Your task to perform on an android device: install app "Indeed Job Search" Image 0: 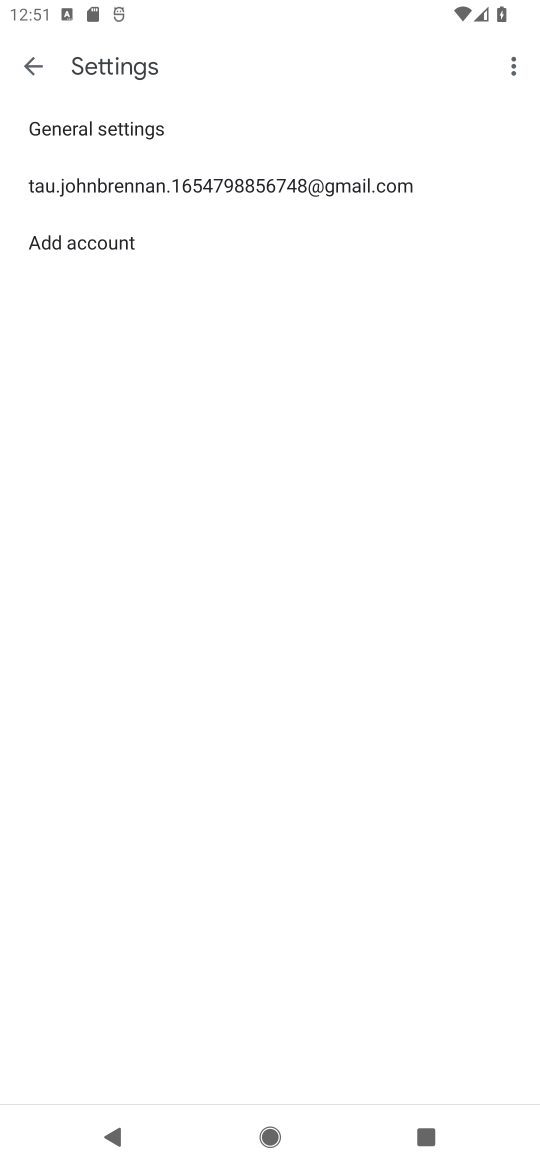
Step 0: press home button
Your task to perform on an android device: install app "Indeed Job Search" Image 1: 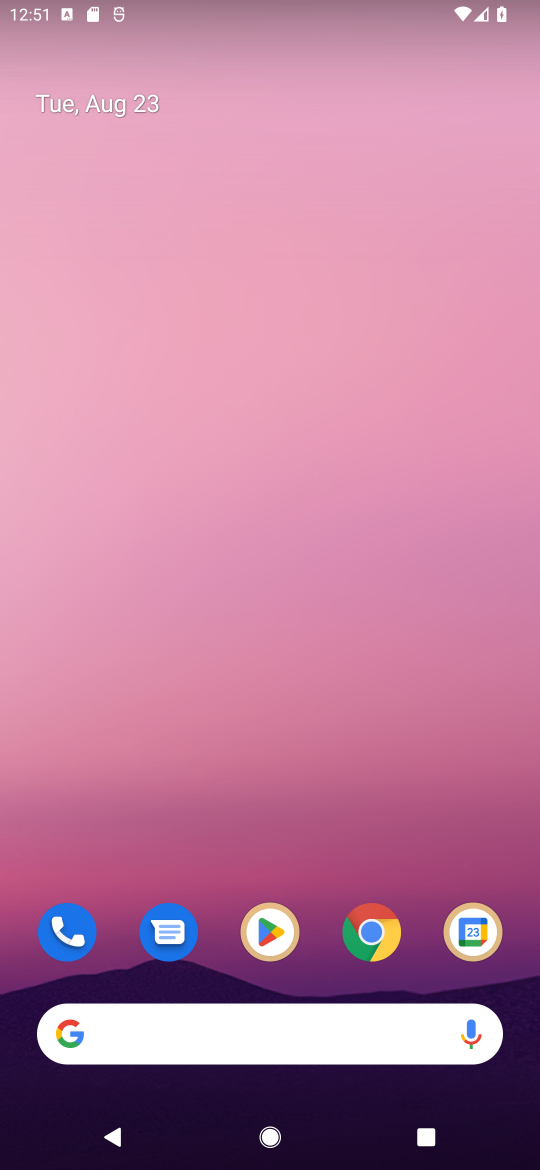
Step 1: click (273, 937)
Your task to perform on an android device: install app "Indeed Job Search" Image 2: 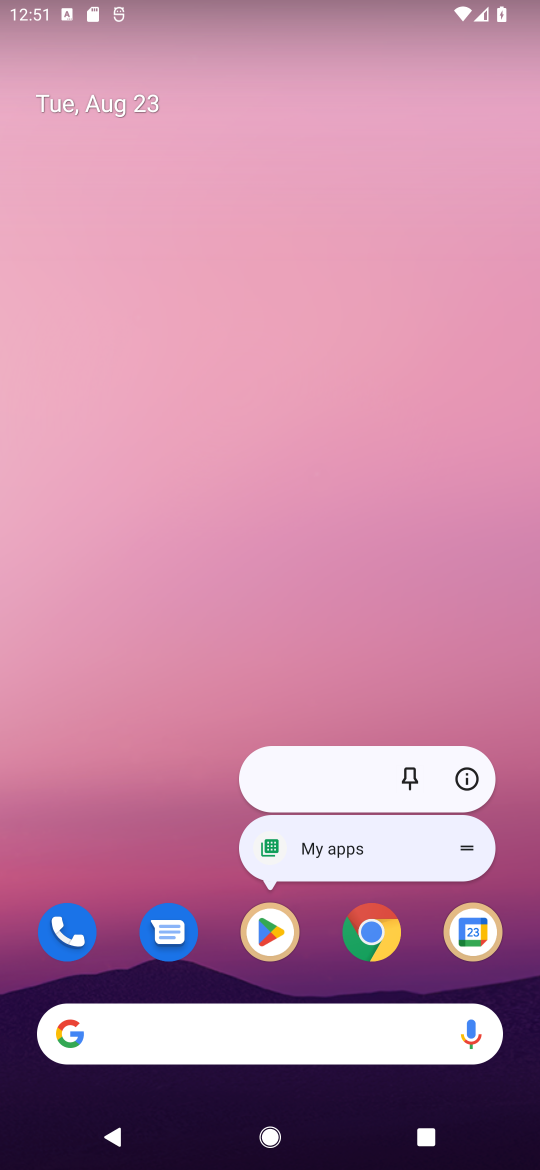
Step 2: click (265, 930)
Your task to perform on an android device: install app "Indeed Job Search" Image 3: 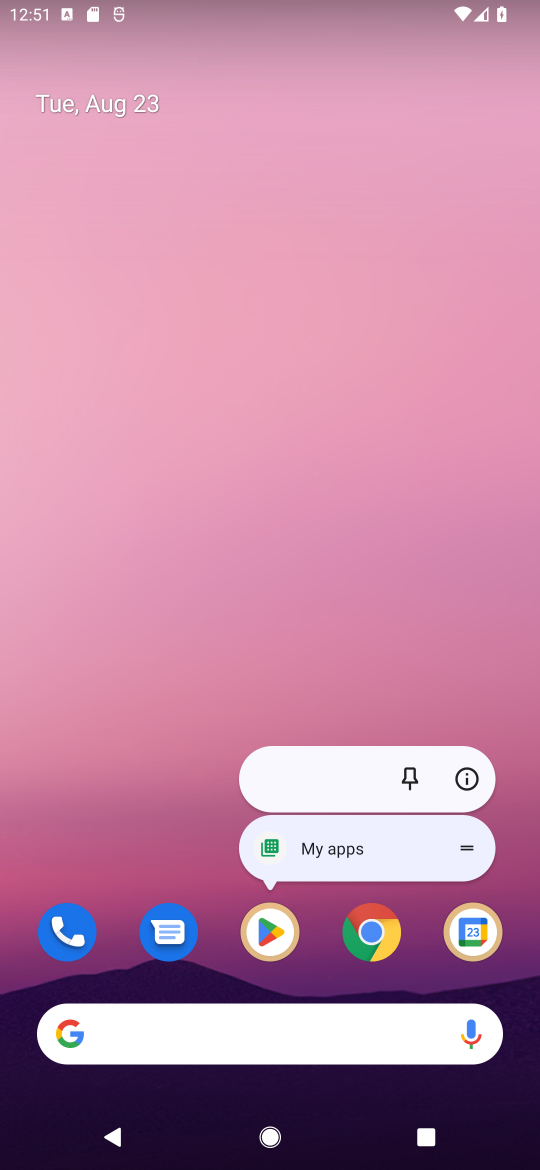
Step 3: click (263, 939)
Your task to perform on an android device: install app "Indeed Job Search" Image 4: 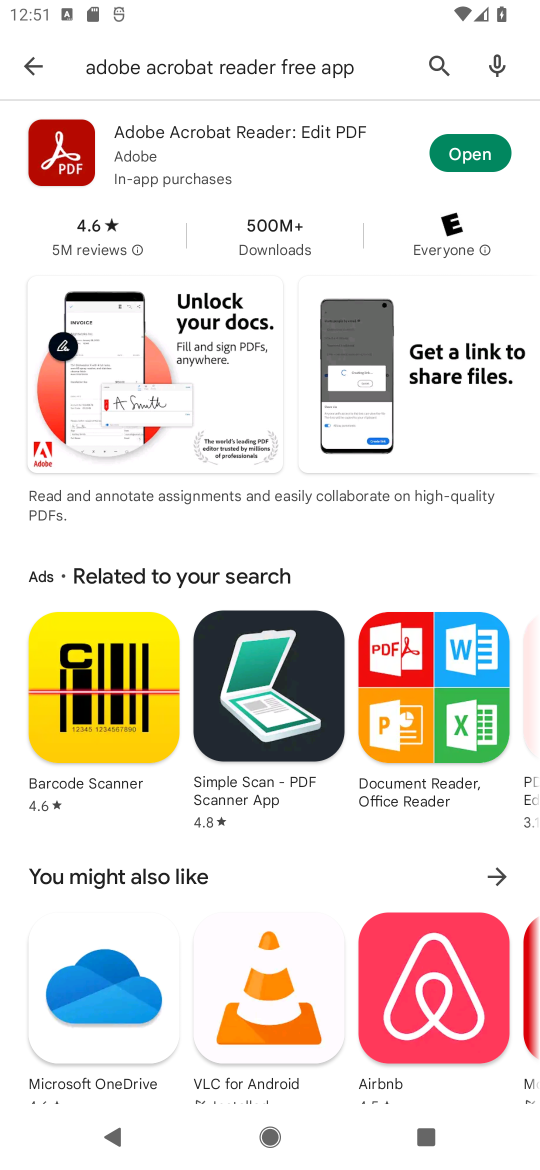
Step 4: click (439, 53)
Your task to perform on an android device: install app "Indeed Job Search" Image 5: 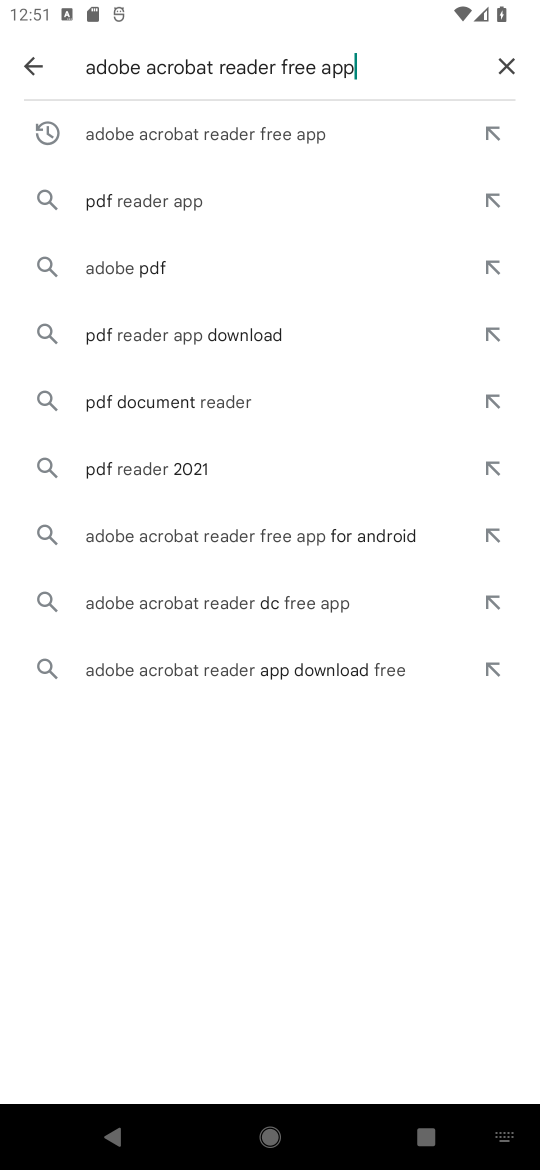
Step 5: click (500, 48)
Your task to perform on an android device: install app "Indeed Job Search" Image 6: 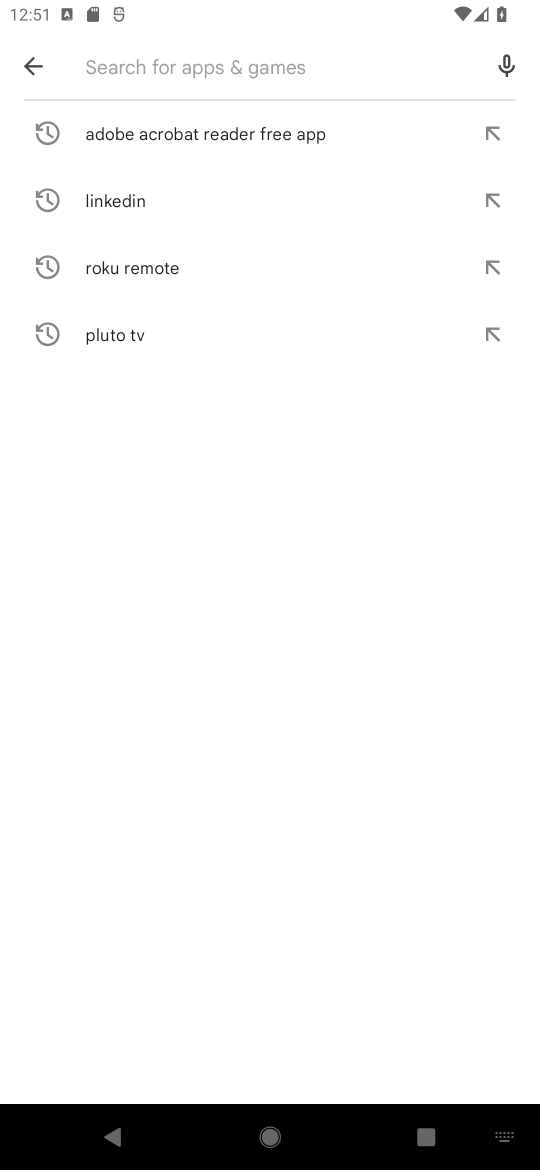
Step 6: click (214, 72)
Your task to perform on an android device: install app "Indeed Job Search" Image 7: 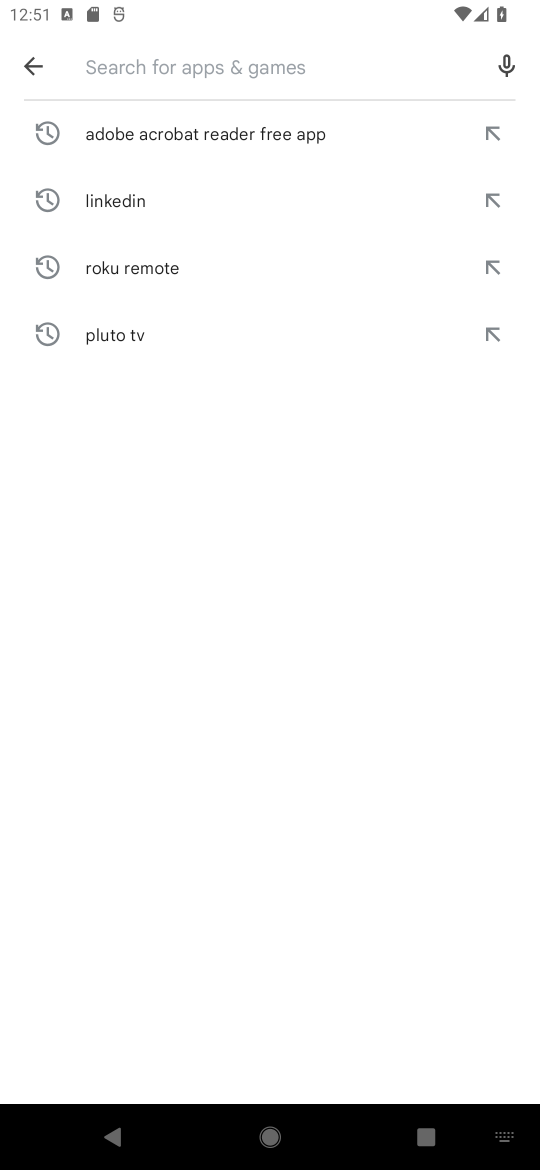
Step 7: type "Indeed Job Search"
Your task to perform on an android device: install app "Indeed Job Search" Image 8: 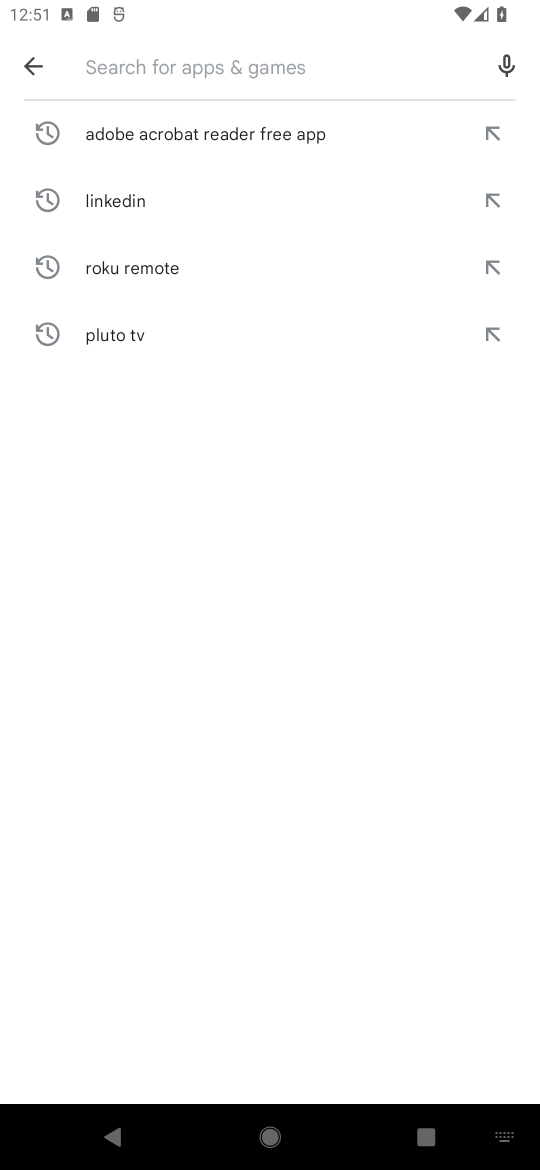
Step 8: click (325, 654)
Your task to perform on an android device: install app "Indeed Job Search" Image 9: 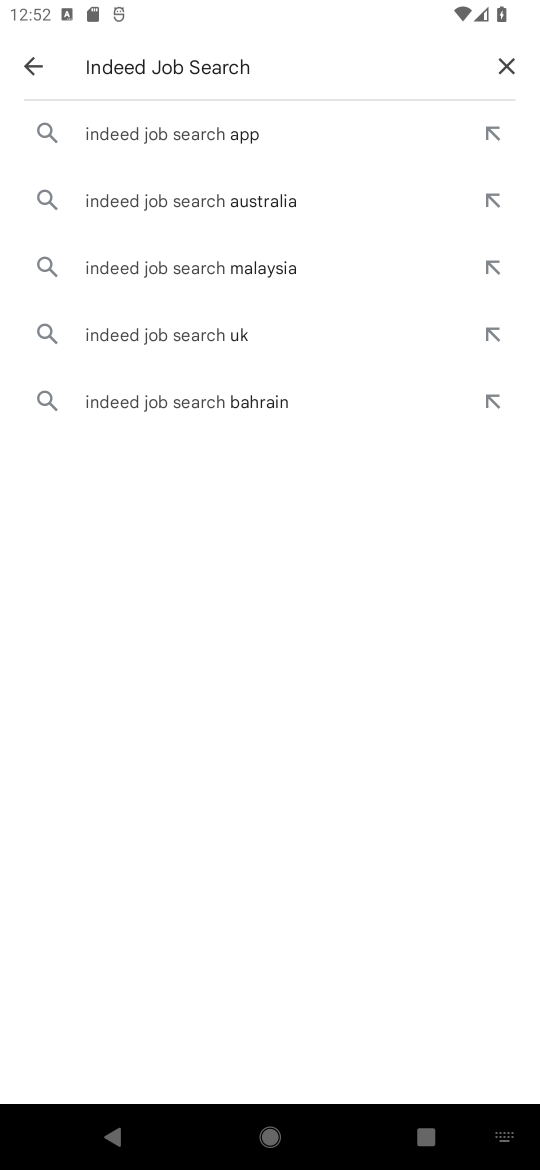
Step 9: click (244, 140)
Your task to perform on an android device: install app "Indeed Job Search" Image 10: 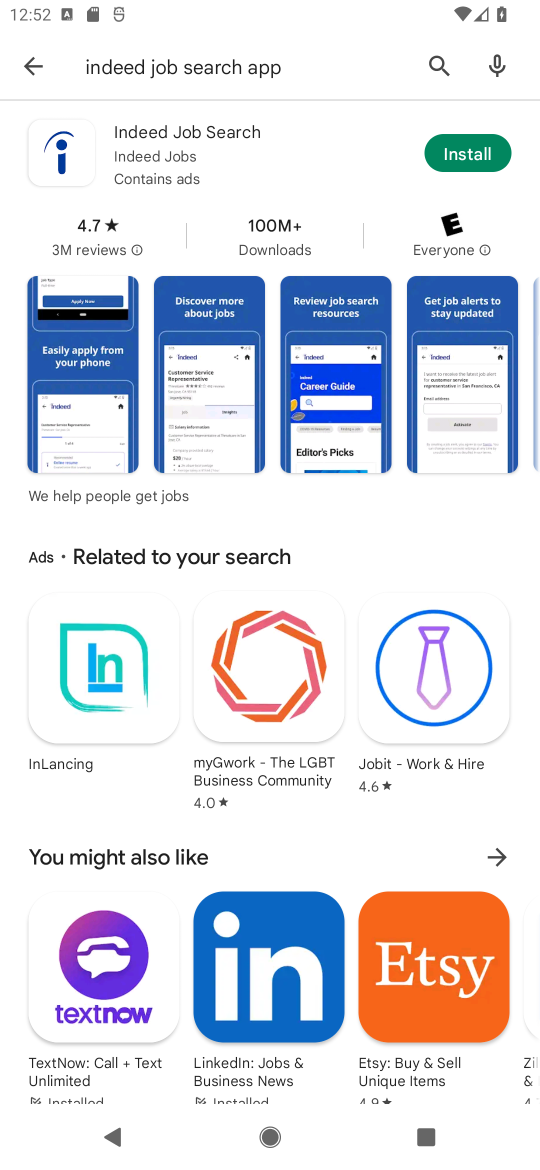
Step 10: click (477, 149)
Your task to perform on an android device: install app "Indeed Job Search" Image 11: 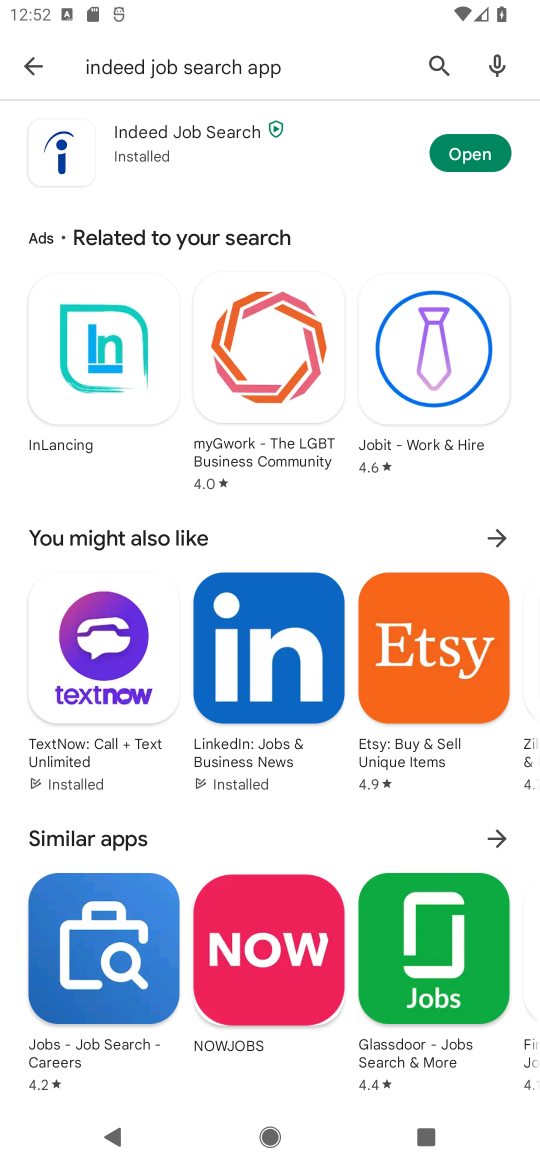
Step 11: task complete